Your task to perform on an android device: Open the calendar app, open the side menu, and click the "Day" option Image 0: 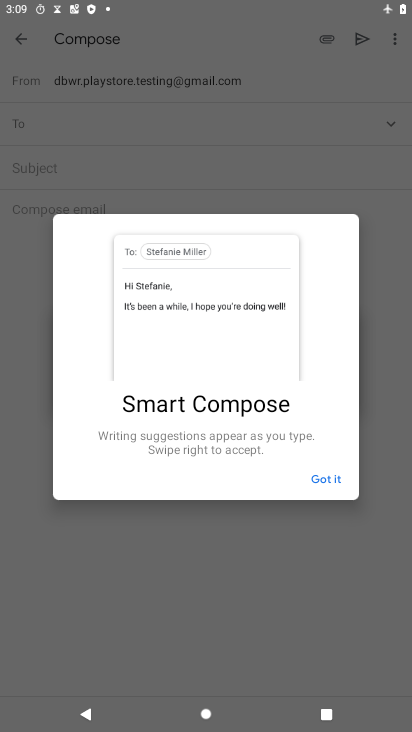
Step 0: press home button
Your task to perform on an android device: Open the calendar app, open the side menu, and click the "Day" option Image 1: 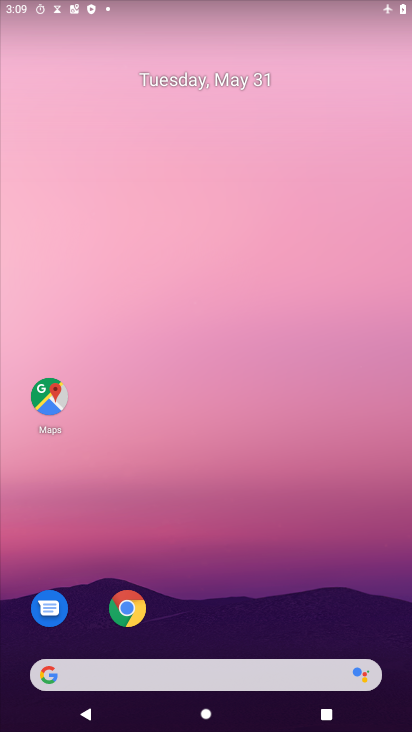
Step 1: drag from (236, 644) to (272, 43)
Your task to perform on an android device: Open the calendar app, open the side menu, and click the "Day" option Image 2: 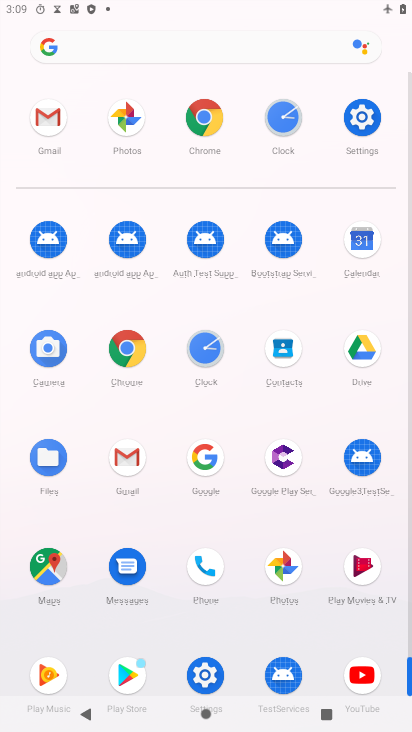
Step 2: click (374, 242)
Your task to perform on an android device: Open the calendar app, open the side menu, and click the "Day" option Image 3: 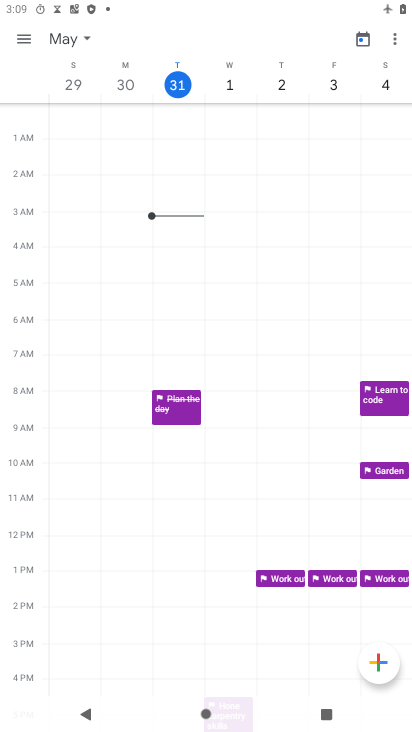
Step 3: click (359, 256)
Your task to perform on an android device: Open the calendar app, open the side menu, and click the "Day" option Image 4: 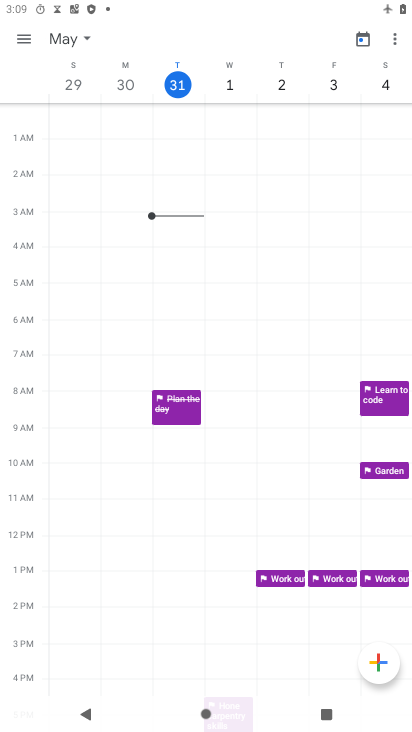
Step 4: click (21, 42)
Your task to perform on an android device: Open the calendar app, open the side menu, and click the "Day" option Image 5: 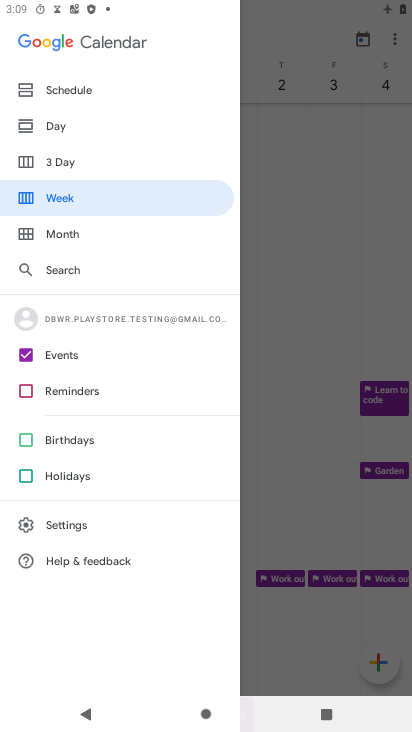
Step 5: click (66, 124)
Your task to perform on an android device: Open the calendar app, open the side menu, and click the "Day" option Image 6: 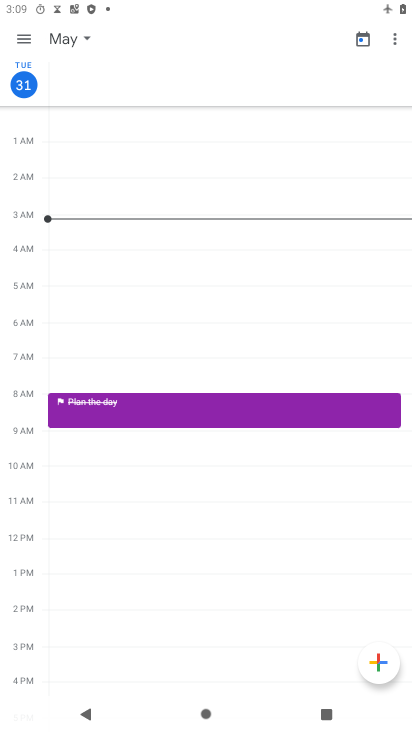
Step 6: task complete